Your task to perform on an android device: search for starred emails in the gmail app Image 0: 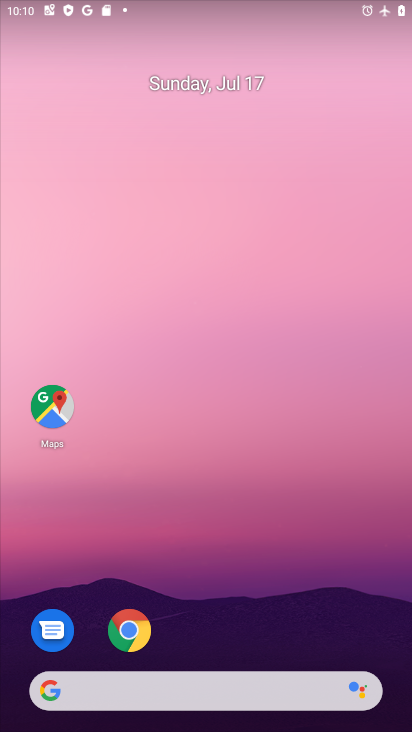
Step 0: press home button
Your task to perform on an android device: search for starred emails in the gmail app Image 1: 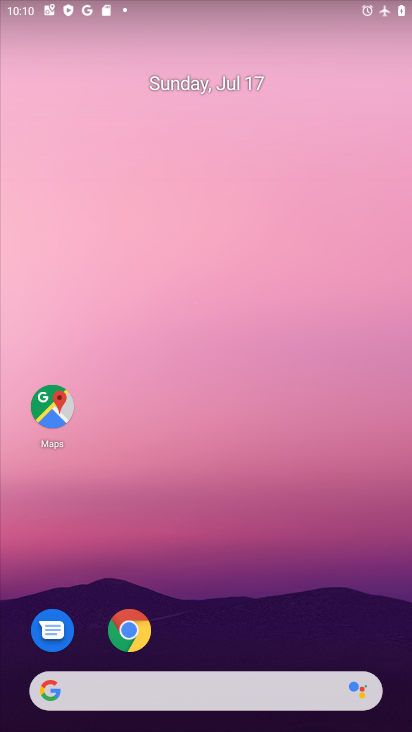
Step 1: drag from (201, 648) to (221, 64)
Your task to perform on an android device: search for starred emails in the gmail app Image 2: 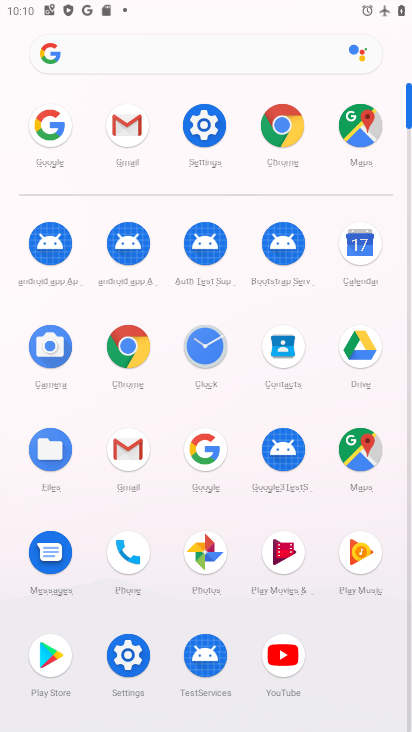
Step 2: click (123, 118)
Your task to perform on an android device: search for starred emails in the gmail app Image 3: 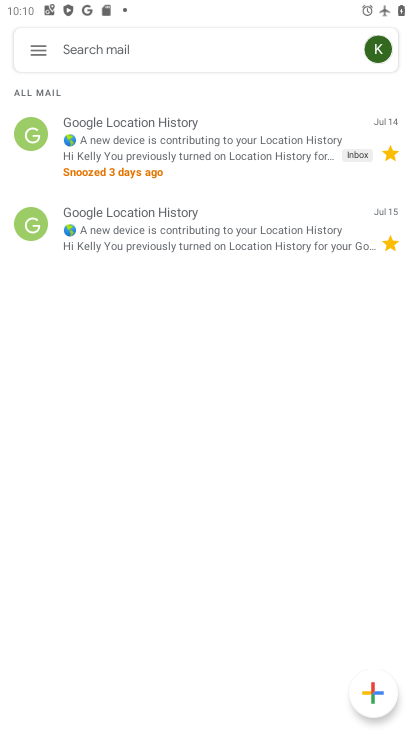
Step 3: click (35, 49)
Your task to perform on an android device: search for starred emails in the gmail app Image 4: 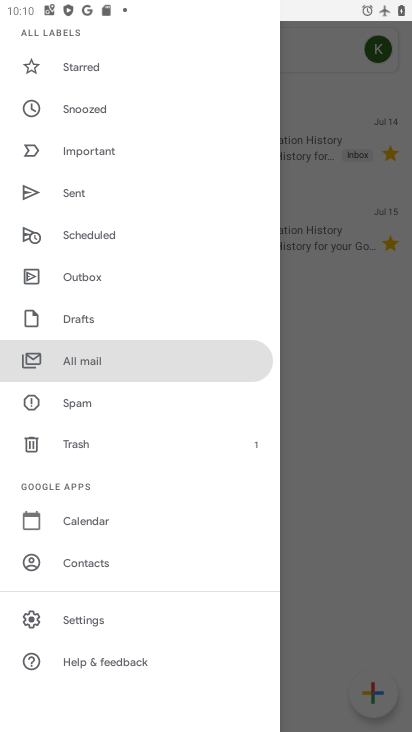
Step 4: click (98, 66)
Your task to perform on an android device: search for starred emails in the gmail app Image 5: 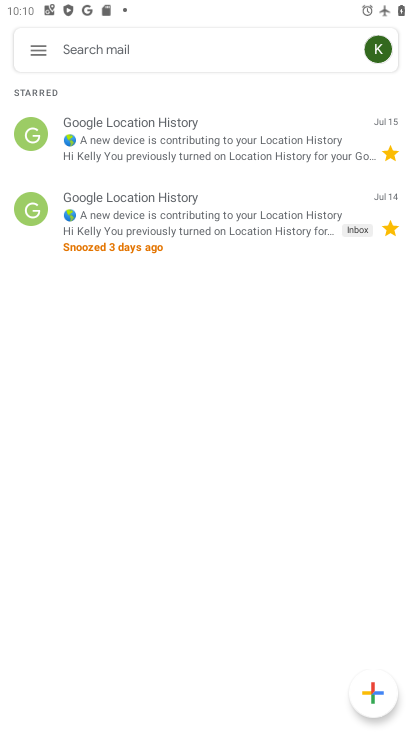
Step 5: task complete